Your task to perform on an android device: toggle airplane mode Image 0: 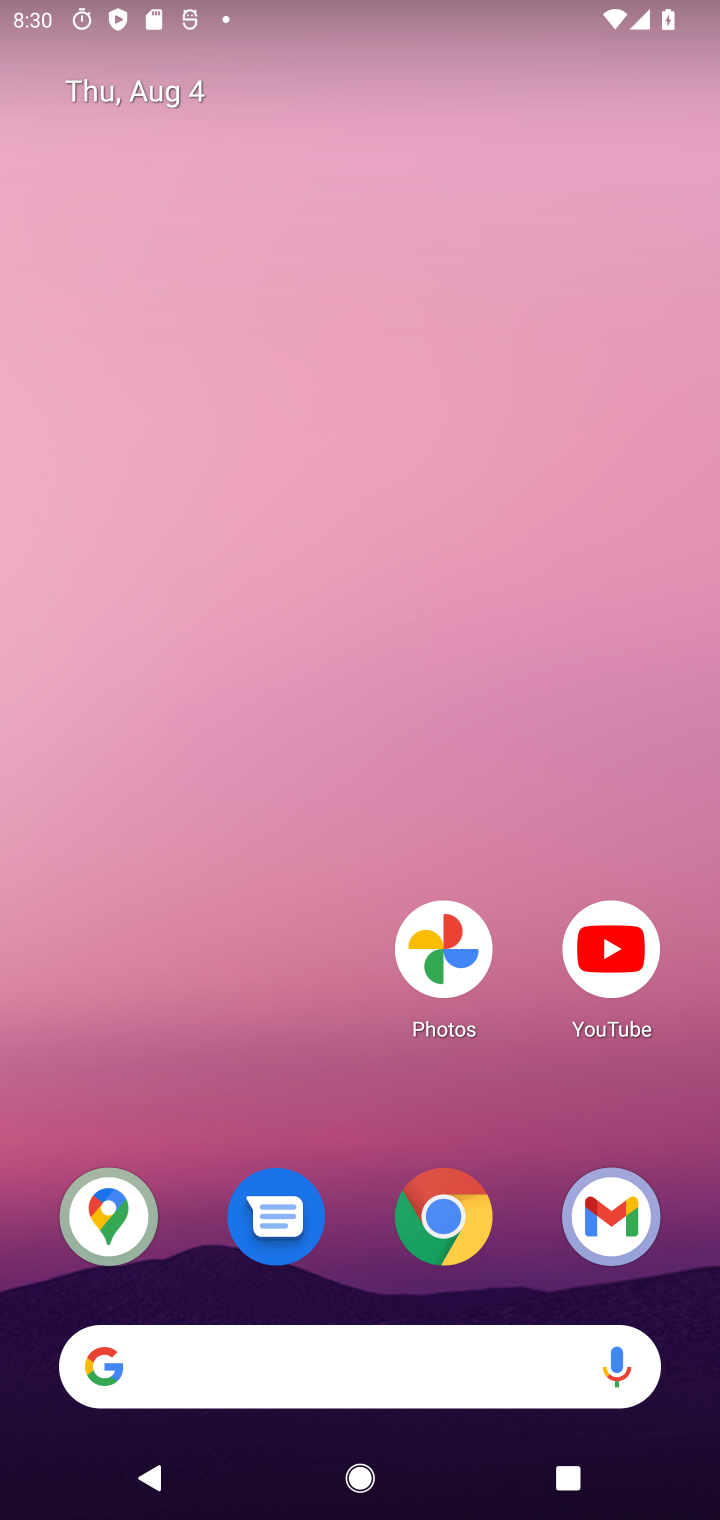
Step 0: drag from (375, 1305) to (369, 214)
Your task to perform on an android device: toggle airplane mode Image 1: 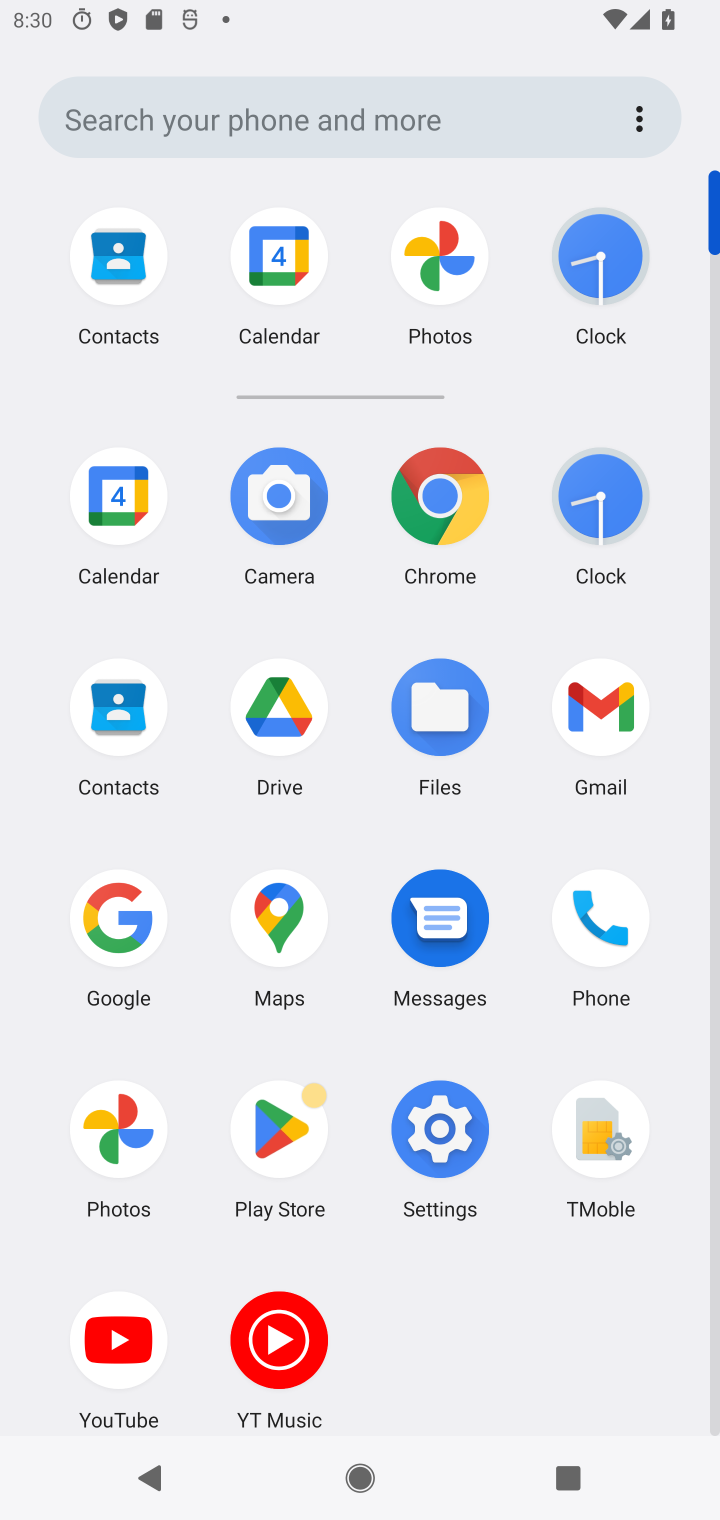
Step 1: click (439, 1134)
Your task to perform on an android device: toggle airplane mode Image 2: 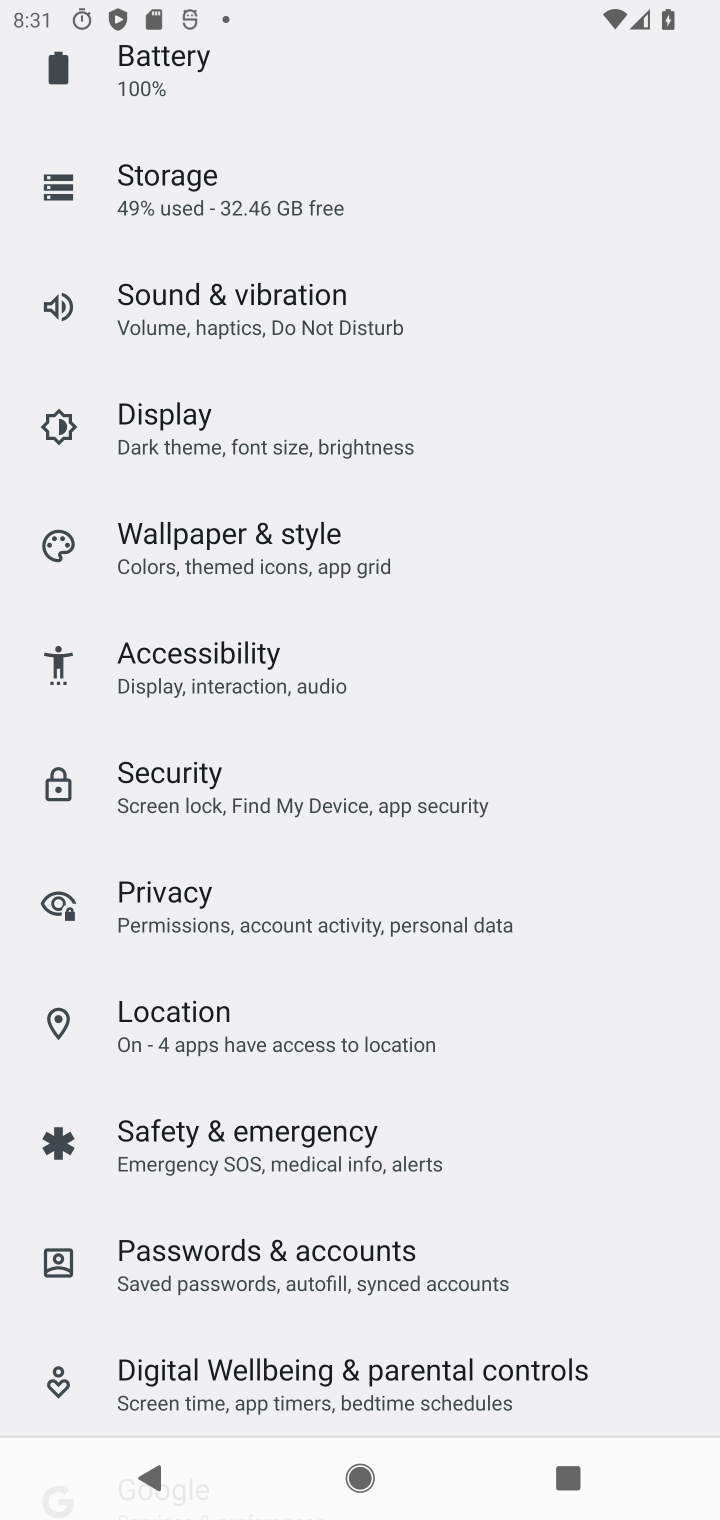
Step 2: drag from (264, 311) to (324, 996)
Your task to perform on an android device: toggle airplane mode Image 3: 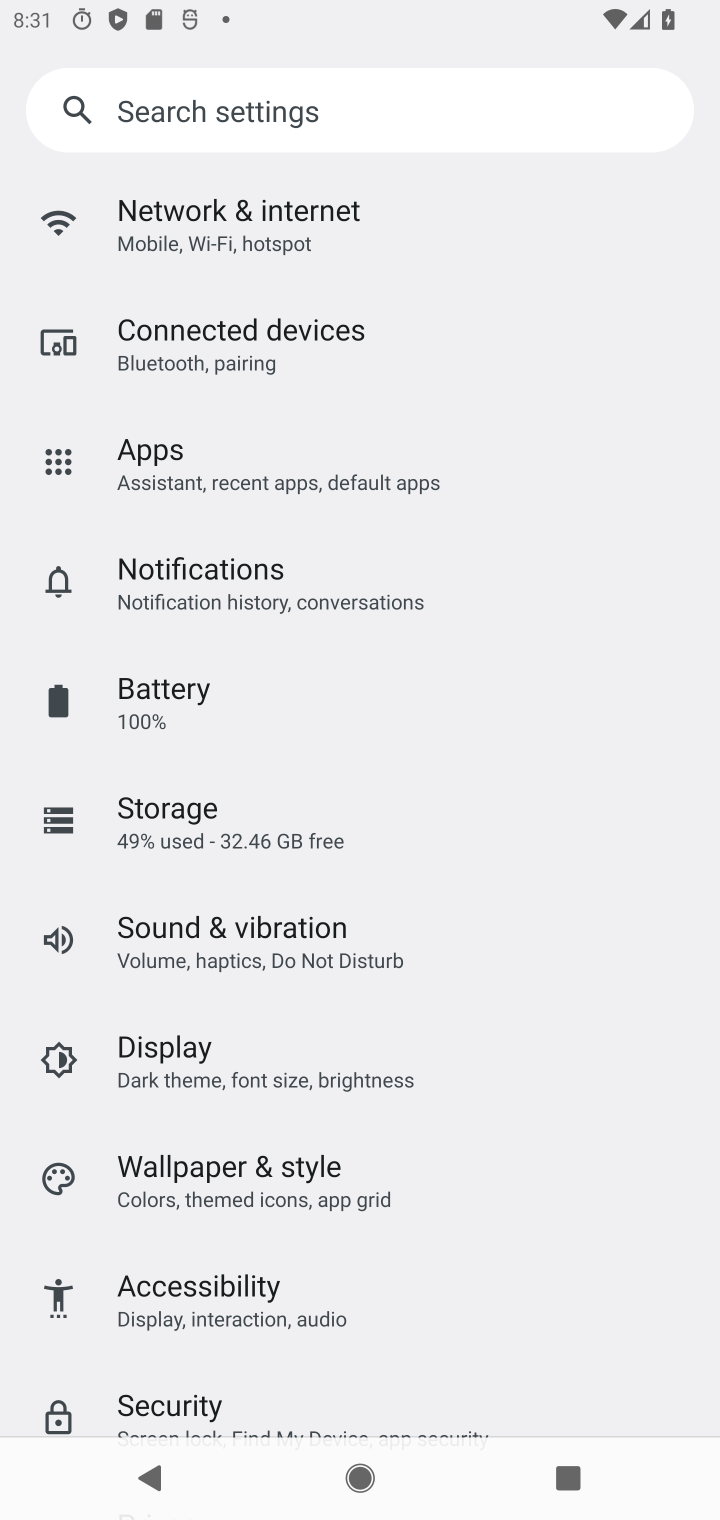
Step 3: drag from (216, 430) to (252, 1082)
Your task to perform on an android device: toggle airplane mode Image 4: 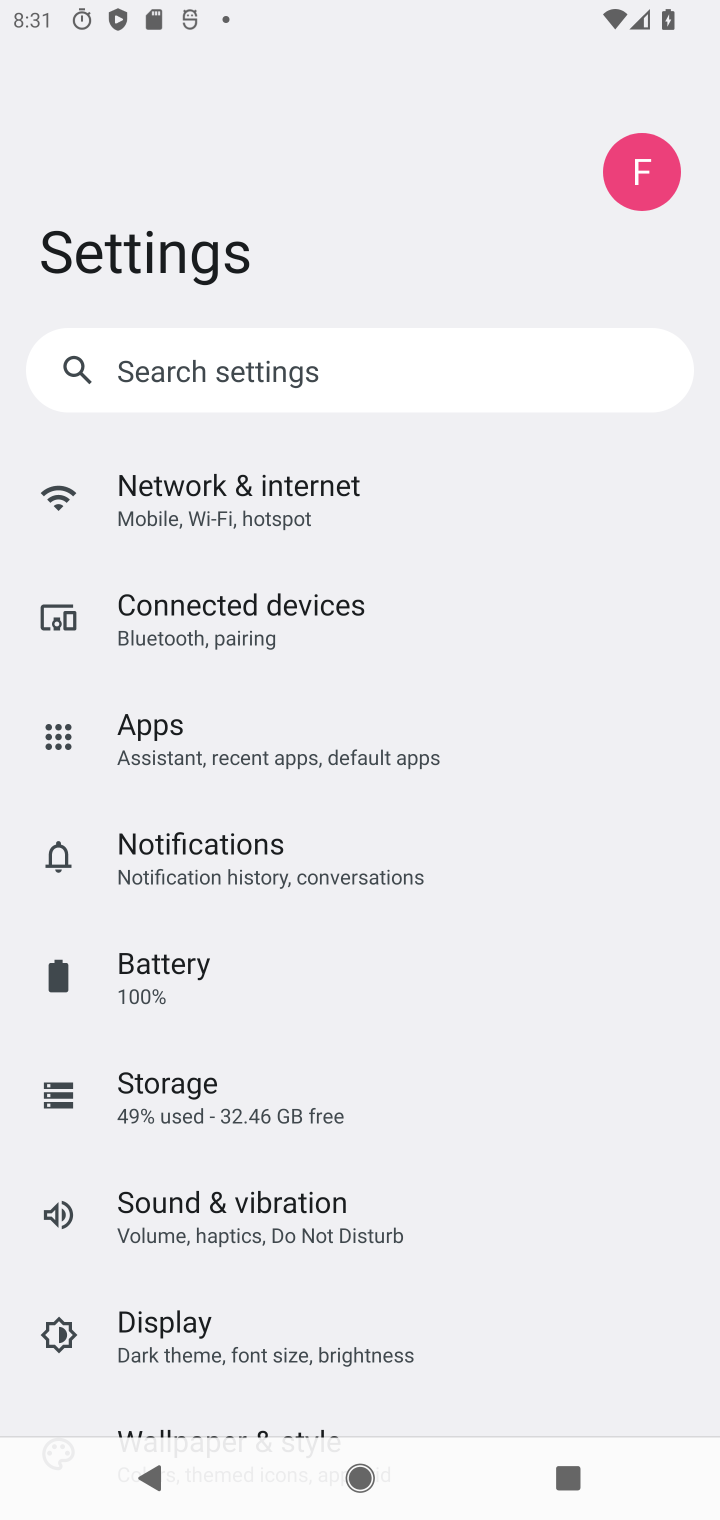
Step 4: click (162, 485)
Your task to perform on an android device: toggle airplane mode Image 5: 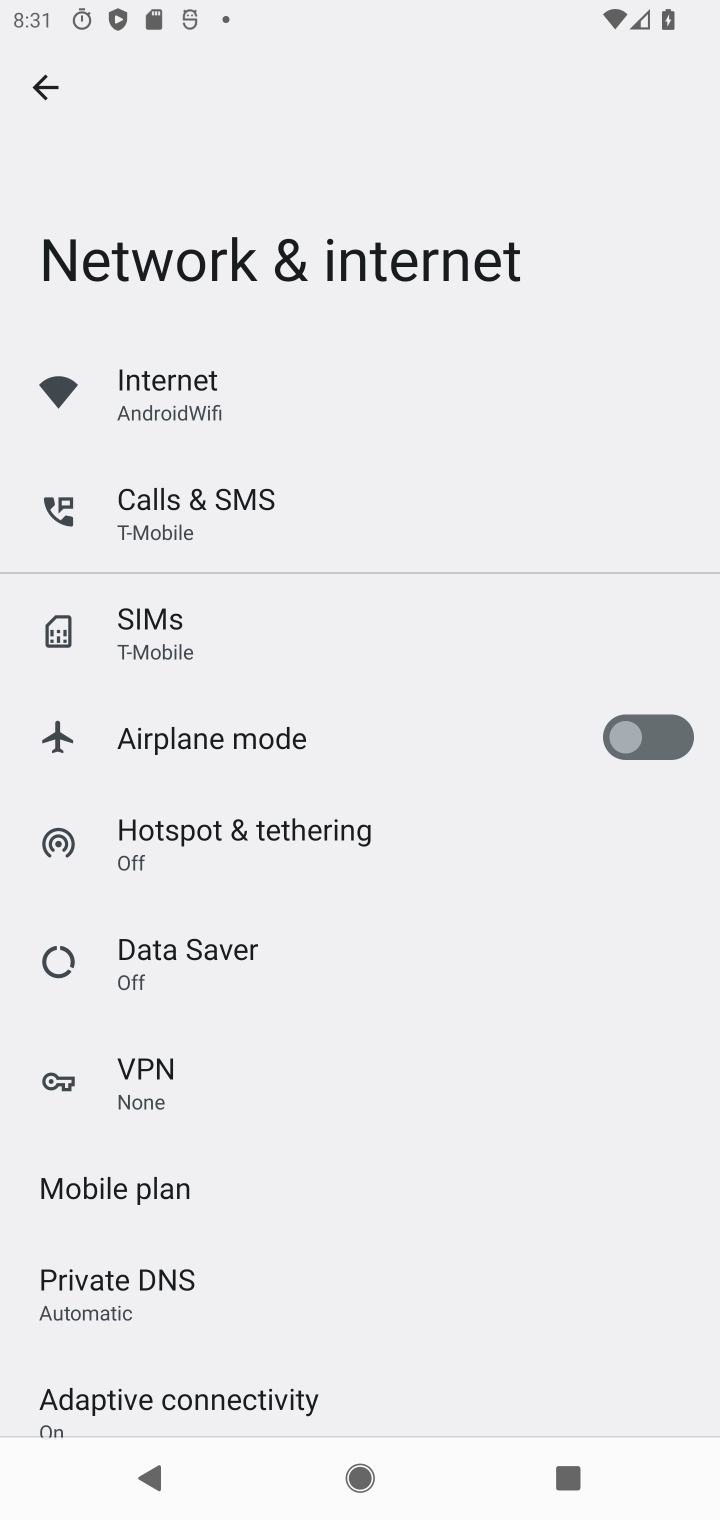
Step 5: click (652, 736)
Your task to perform on an android device: toggle airplane mode Image 6: 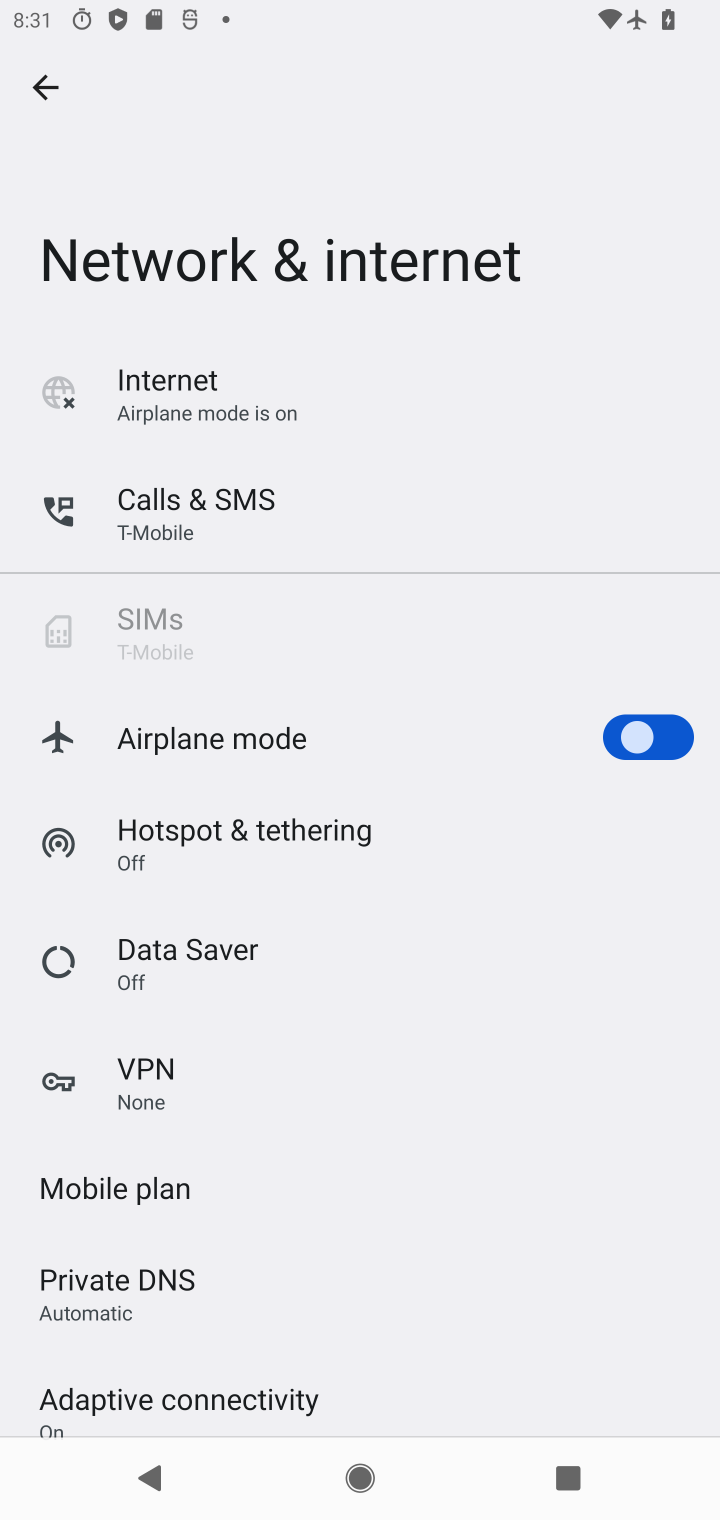
Step 6: task complete